Your task to perform on an android device: Where can I buy a nice beach sandals? Image 0: 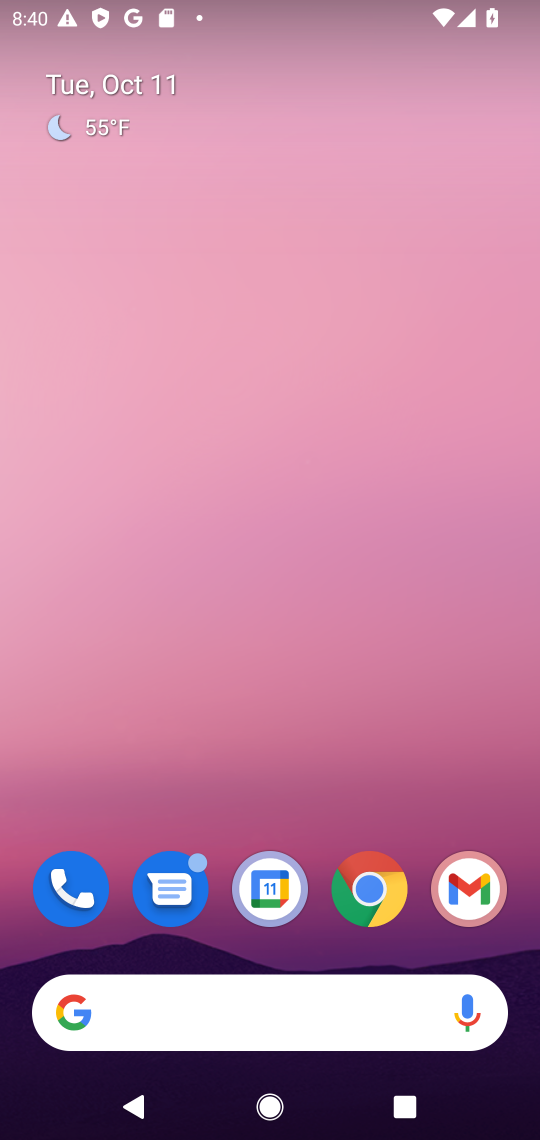
Step 0: click (241, 1003)
Your task to perform on an android device: Where can I buy a nice beach sandals? Image 1: 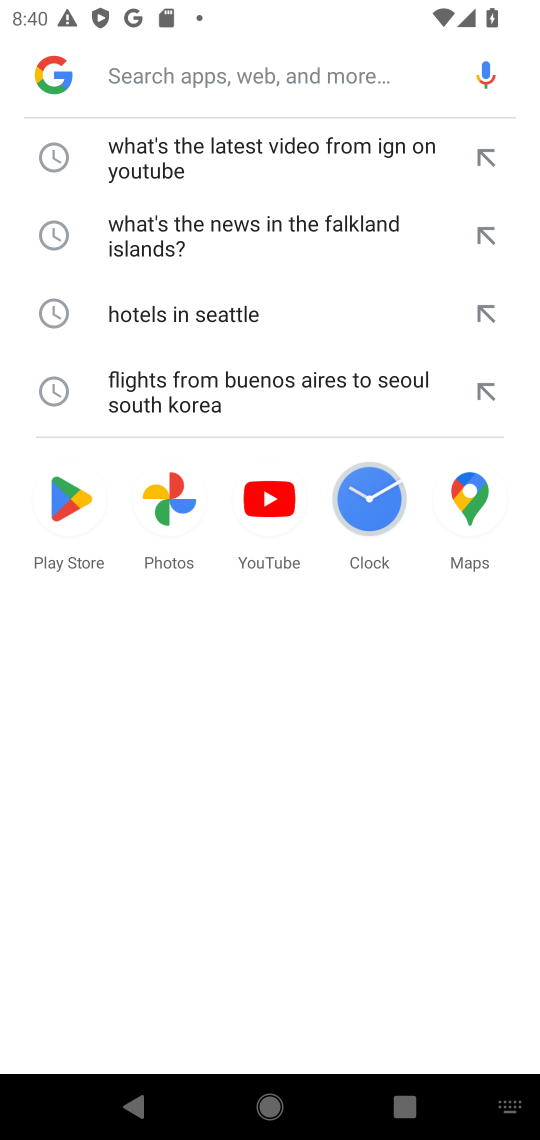
Step 1: click (155, 88)
Your task to perform on an android device: Where can I buy a nice beach sandals? Image 2: 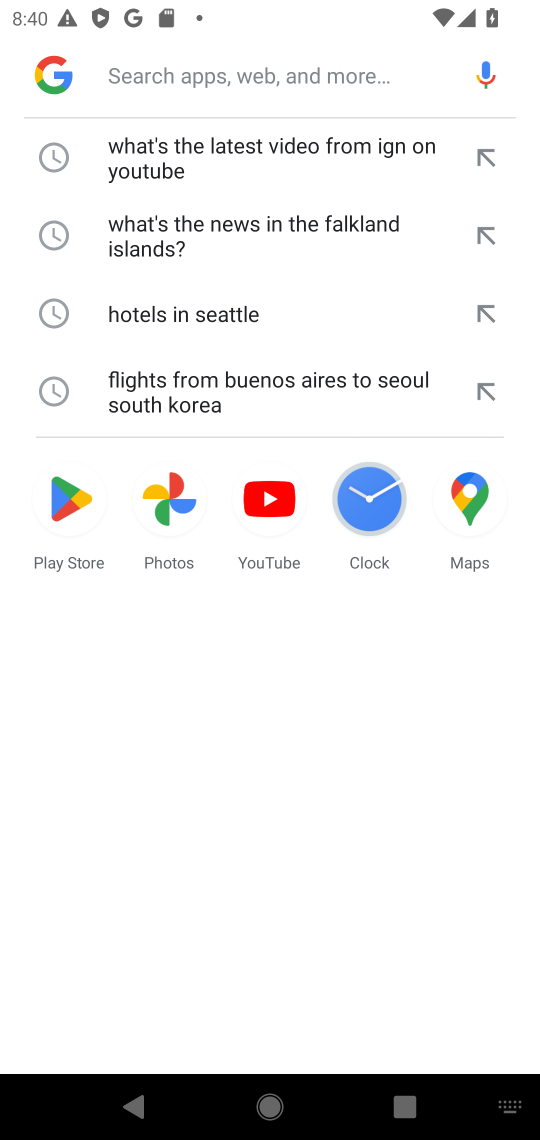
Step 2: type "Where can I buy a nice beach sandals?"
Your task to perform on an android device: Where can I buy a nice beach sandals? Image 3: 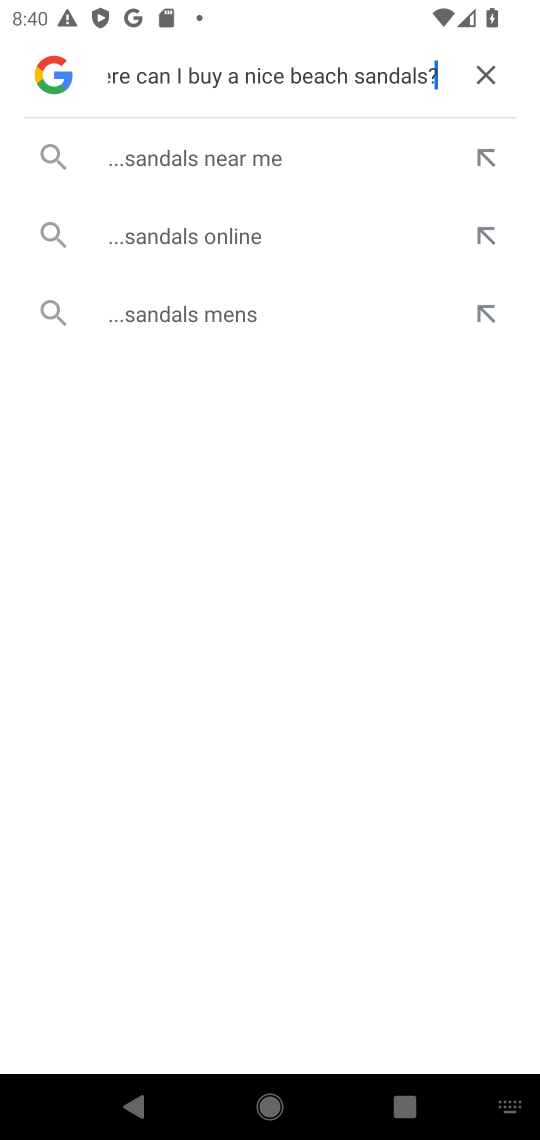
Step 3: click (179, 165)
Your task to perform on an android device: Where can I buy a nice beach sandals? Image 4: 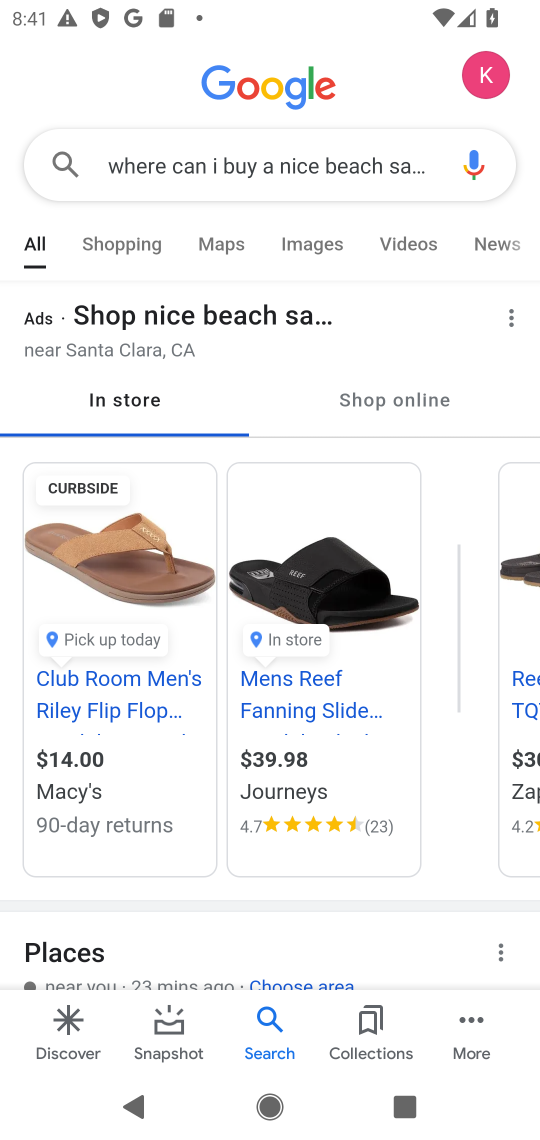
Step 4: task complete